Your task to perform on an android device: Open Google Maps and go to "Timeline" Image 0: 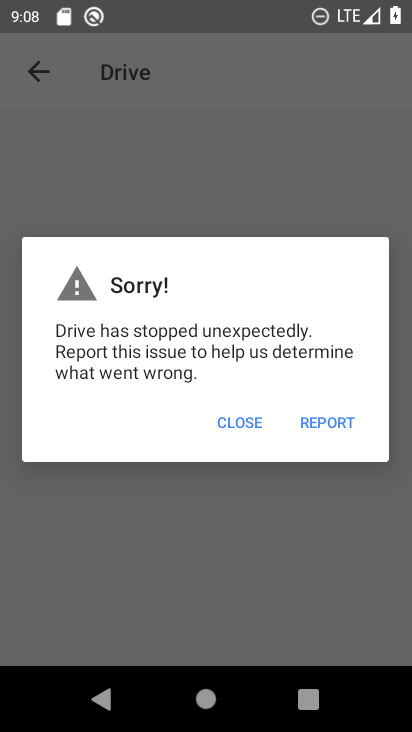
Step 0: press home button
Your task to perform on an android device: Open Google Maps and go to "Timeline" Image 1: 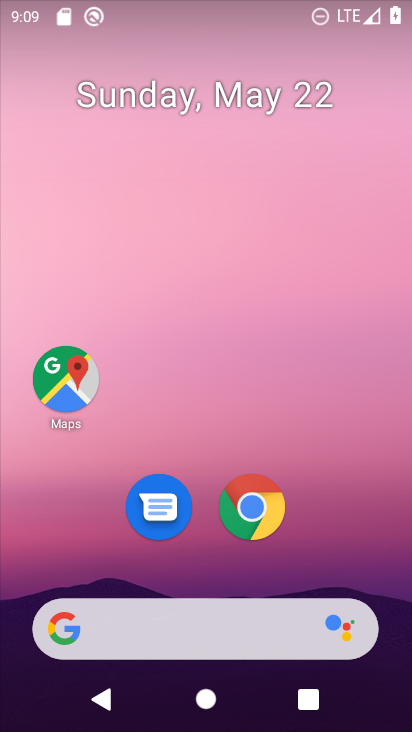
Step 1: click (45, 376)
Your task to perform on an android device: Open Google Maps and go to "Timeline" Image 2: 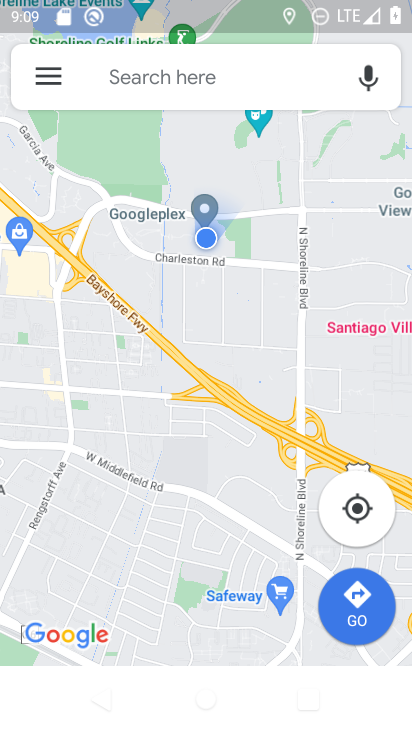
Step 2: click (44, 79)
Your task to perform on an android device: Open Google Maps and go to "Timeline" Image 3: 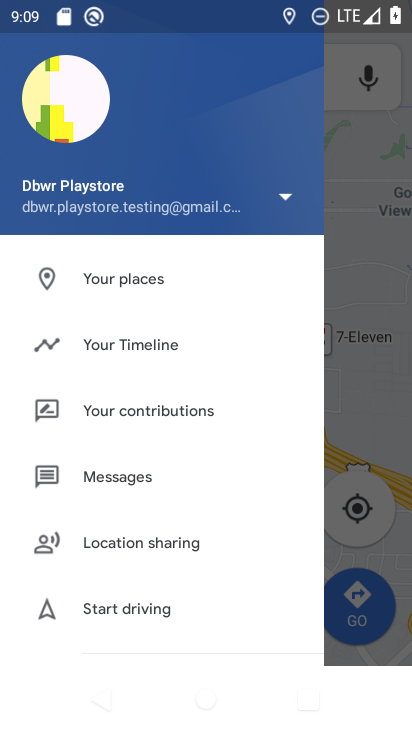
Step 3: click (181, 340)
Your task to perform on an android device: Open Google Maps and go to "Timeline" Image 4: 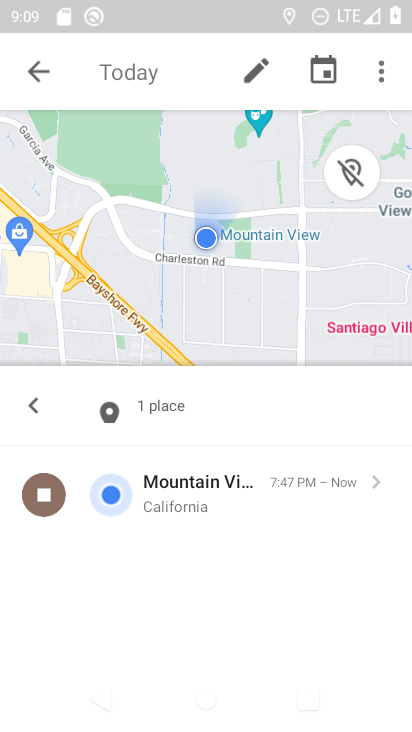
Step 4: task complete